Your task to perform on an android device: remove spam from my inbox in the gmail app Image 0: 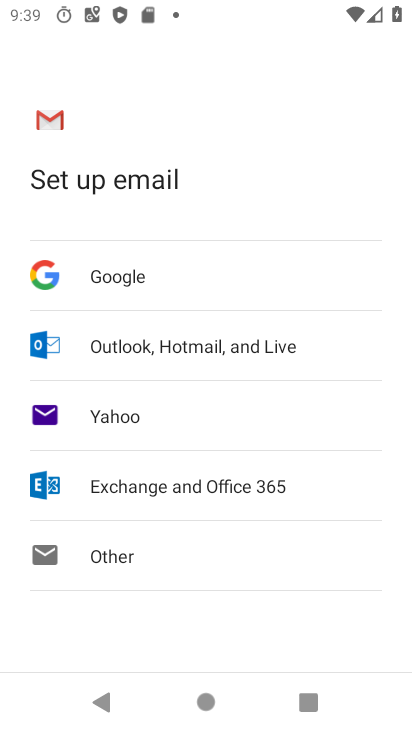
Step 0: press home button
Your task to perform on an android device: remove spam from my inbox in the gmail app Image 1: 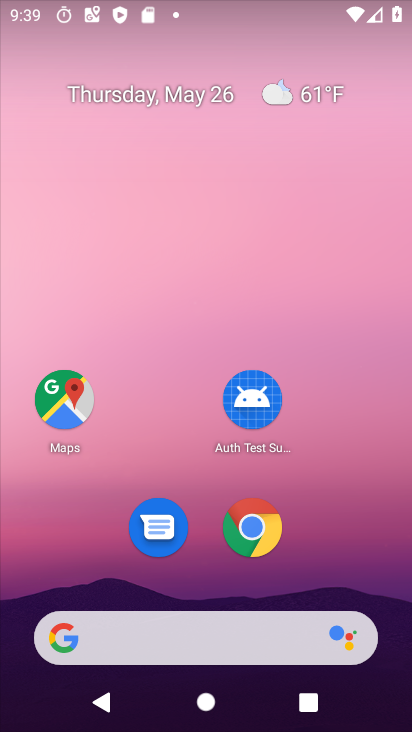
Step 1: drag from (360, 507) to (388, 9)
Your task to perform on an android device: remove spam from my inbox in the gmail app Image 2: 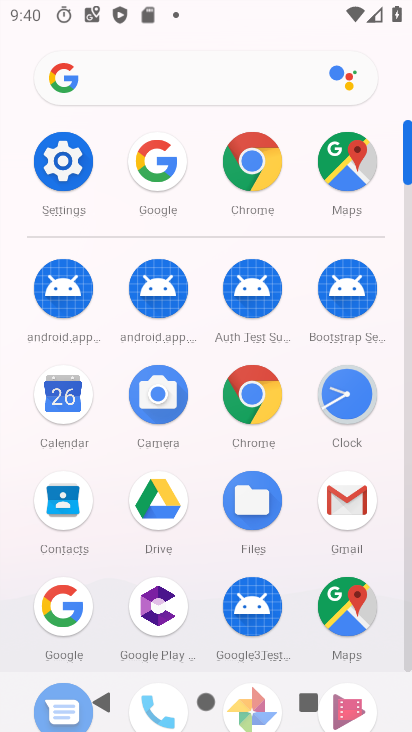
Step 2: click (341, 512)
Your task to perform on an android device: remove spam from my inbox in the gmail app Image 3: 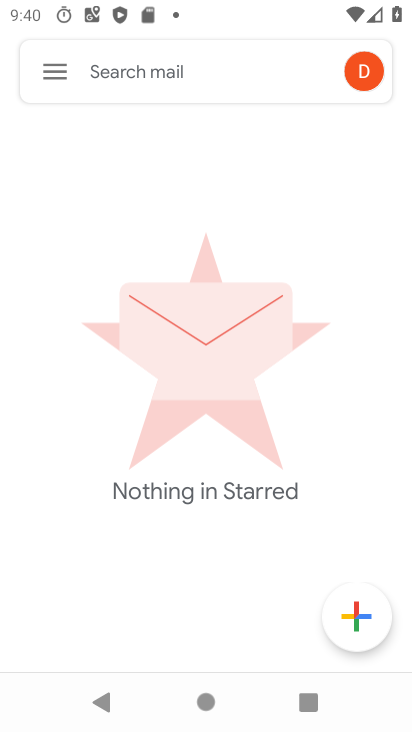
Step 3: click (68, 69)
Your task to perform on an android device: remove spam from my inbox in the gmail app Image 4: 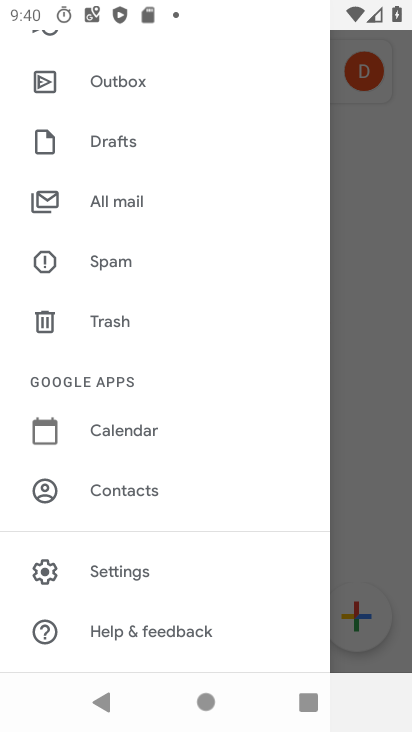
Step 4: click (68, 256)
Your task to perform on an android device: remove spam from my inbox in the gmail app Image 5: 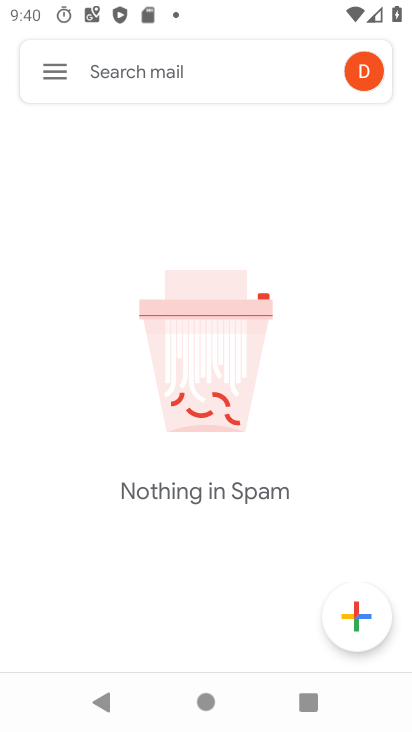
Step 5: task complete